Your task to perform on an android device: check storage Image 0: 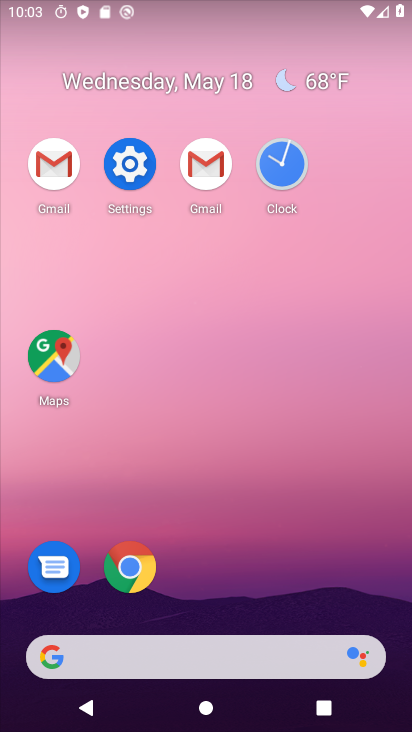
Step 0: click (138, 155)
Your task to perform on an android device: check storage Image 1: 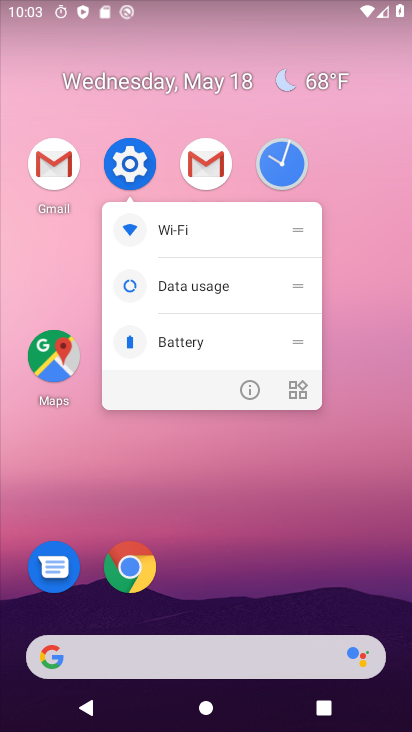
Step 1: click (130, 160)
Your task to perform on an android device: check storage Image 2: 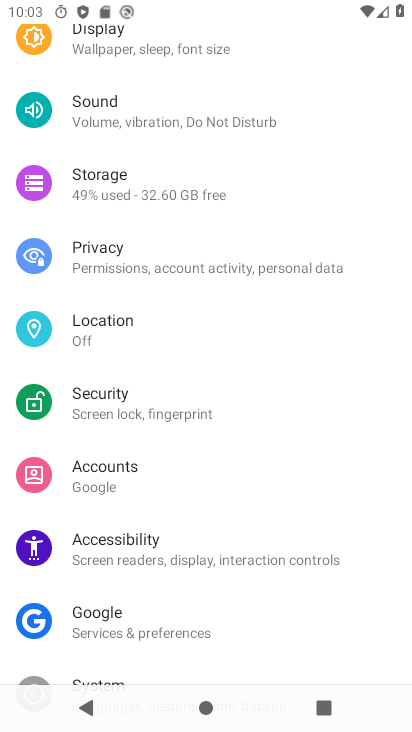
Step 2: click (152, 175)
Your task to perform on an android device: check storage Image 3: 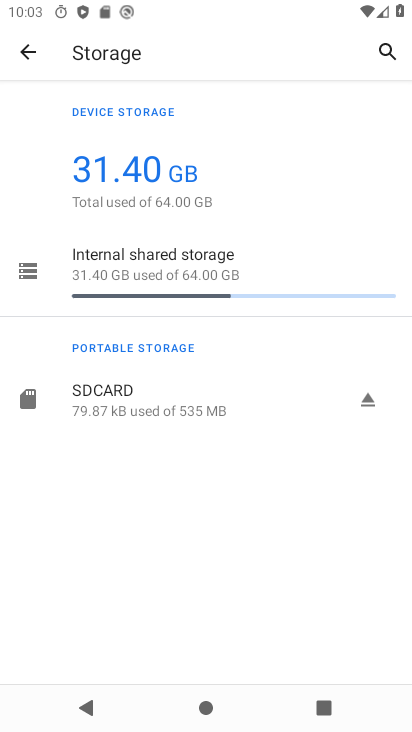
Step 3: task complete